Your task to perform on an android device: show emergency info Image 0: 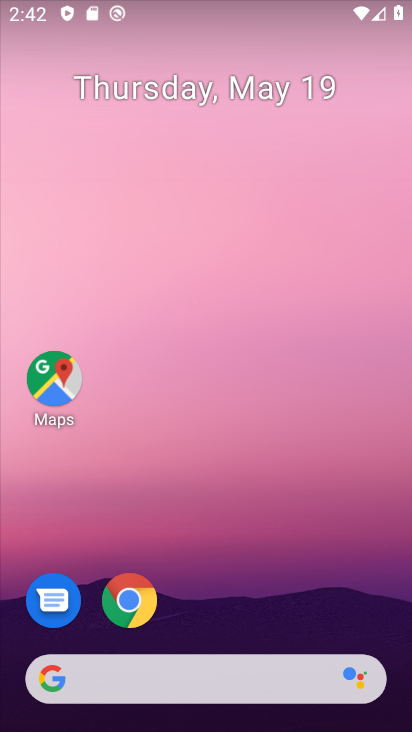
Step 0: drag from (205, 629) to (238, 226)
Your task to perform on an android device: show emergency info Image 1: 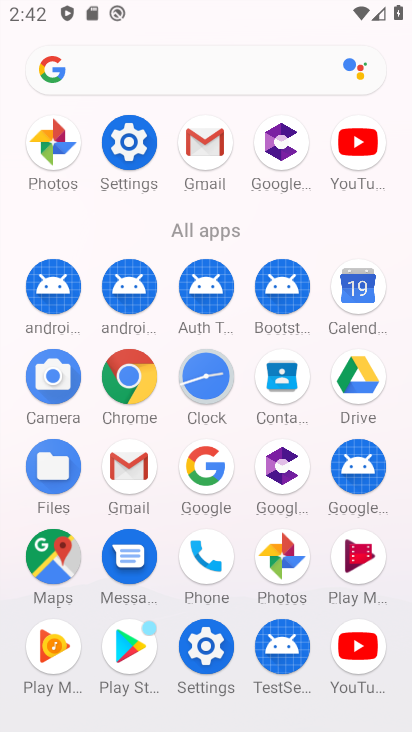
Step 1: click (220, 655)
Your task to perform on an android device: show emergency info Image 2: 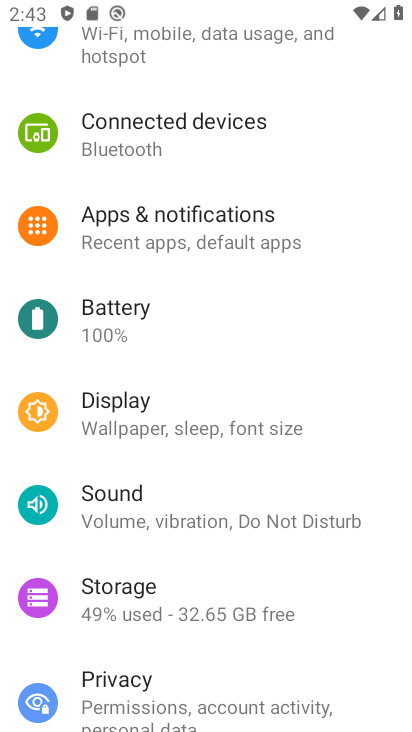
Step 2: drag from (187, 667) to (209, 271)
Your task to perform on an android device: show emergency info Image 3: 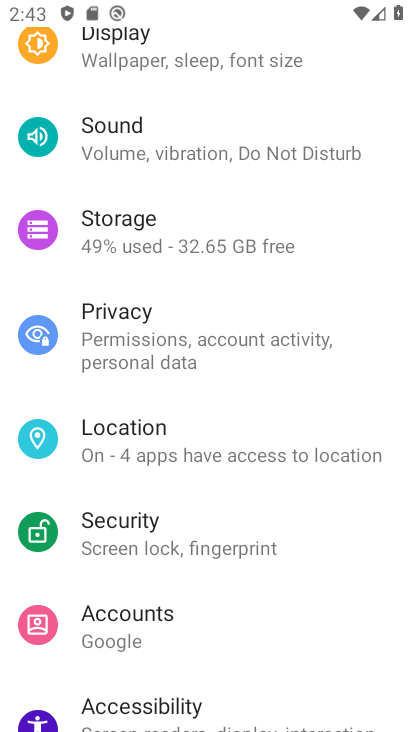
Step 3: drag from (200, 567) to (218, 302)
Your task to perform on an android device: show emergency info Image 4: 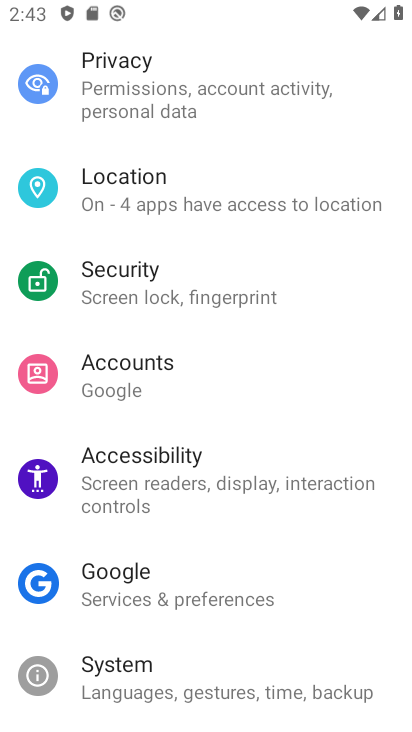
Step 4: drag from (168, 625) to (217, 337)
Your task to perform on an android device: show emergency info Image 5: 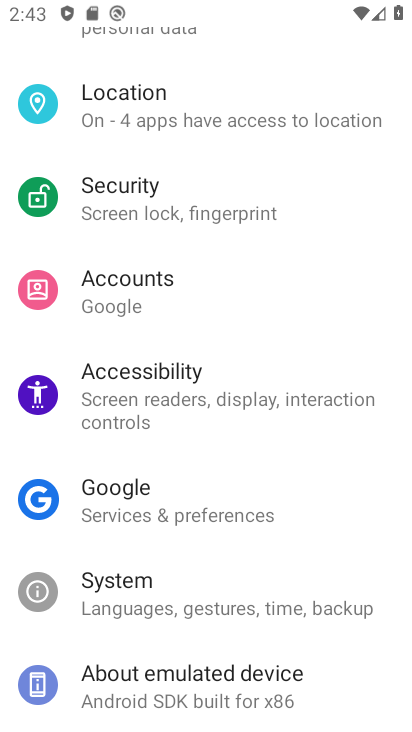
Step 5: click (179, 679)
Your task to perform on an android device: show emergency info Image 6: 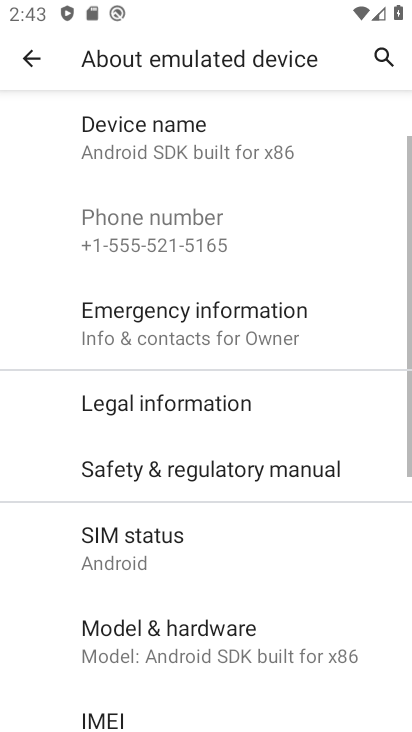
Step 6: click (191, 316)
Your task to perform on an android device: show emergency info Image 7: 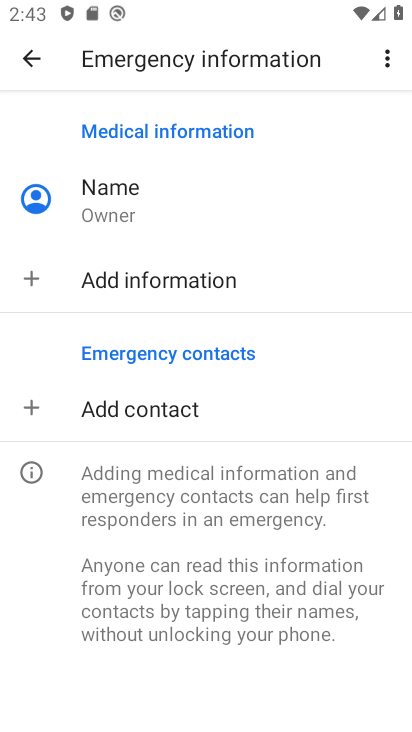
Step 7: task complete